Your task to perform on an android device: Show me popular videos on Youtube Image 0: 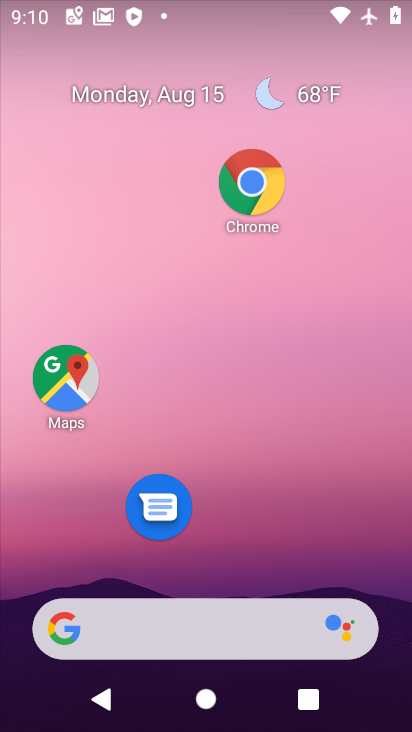
Step 0: drag from (277, 590) to (240, 29)
Your task to perform on an android device: Show me popular videos on Youtube Image 1: 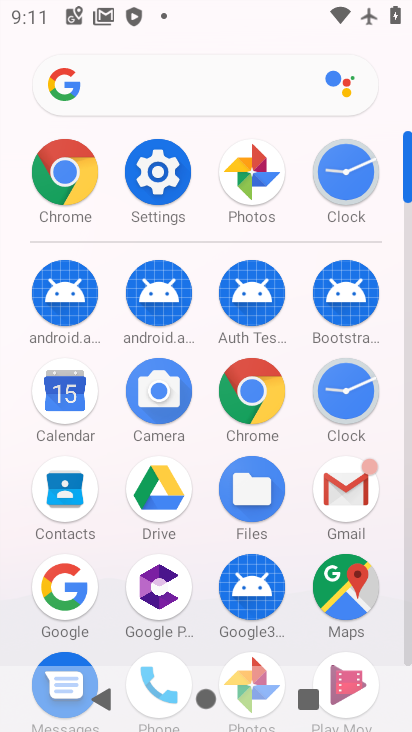
Step 1: click (405, 583)
Your task to perform on an android device: Show me popular videos on Youtube Image 2: 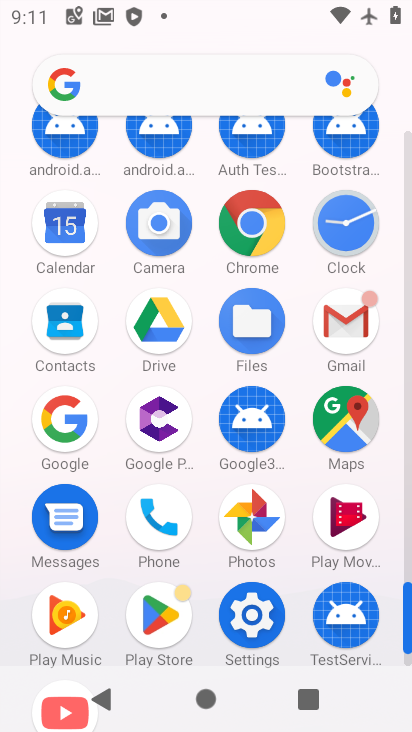
Step 2: drag from (405, 636) to (406, 672)
Your task to perform on an android device: Show me popular videos on Youtube Image 3: 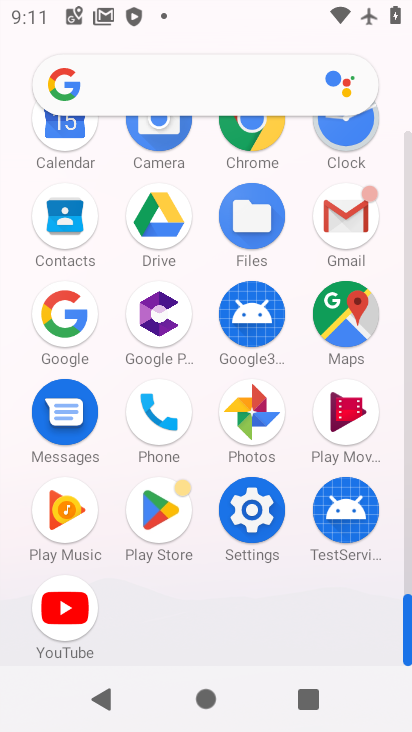
Step 3: click (77, 606)
Your task to perform on an android device: Show me popular videos on Youtube Image 4: 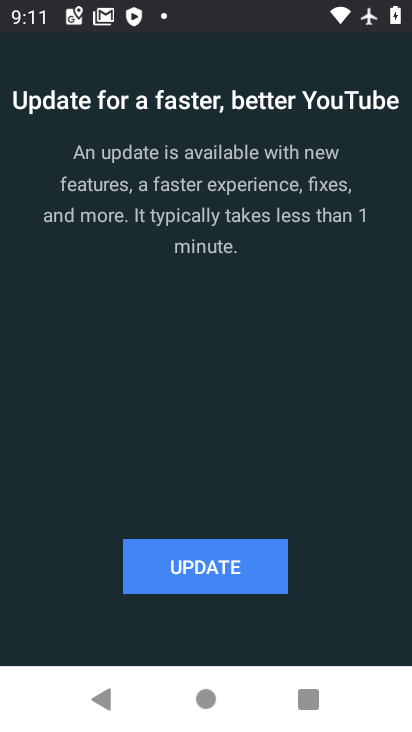
Step 4: click (154, 576)
Your task to perform on an android device: Show me popular videos on Youtube Image 5: 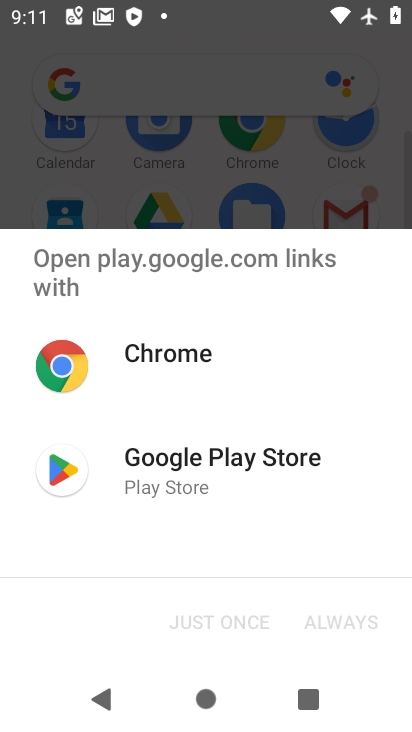
Step 5: click (107, 460)
Your task to perform on an android device: Show me popular videos on Youtube Image 6: 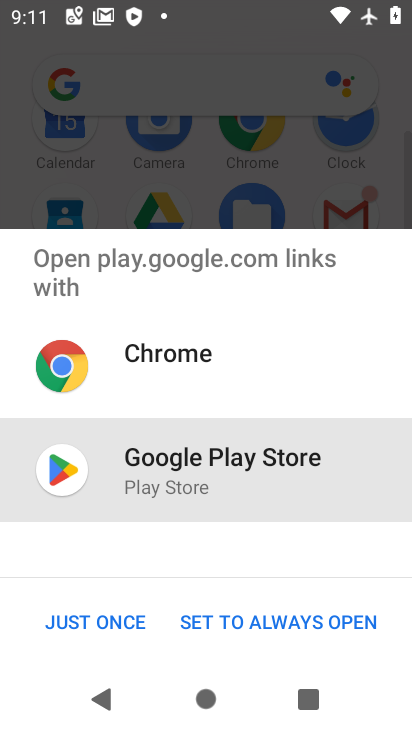
Step 6: click (119, 612)
Your task to perform on an android device: Show me popular videos on Youtube Image 7: 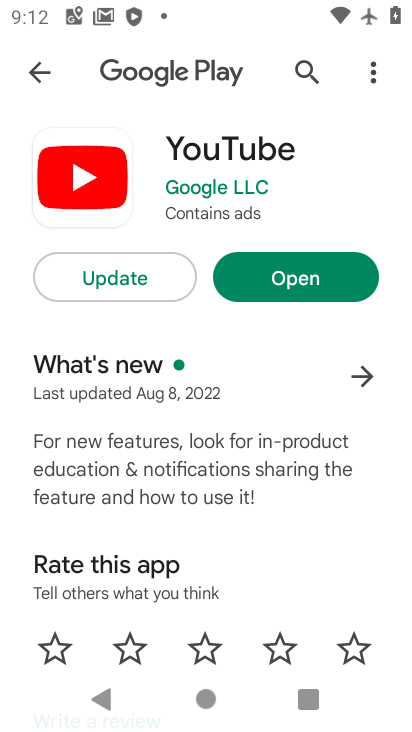
Step 7: click (259, 283)
Your task to perform on an android device: Show me popular videos on Youtube Image 8: 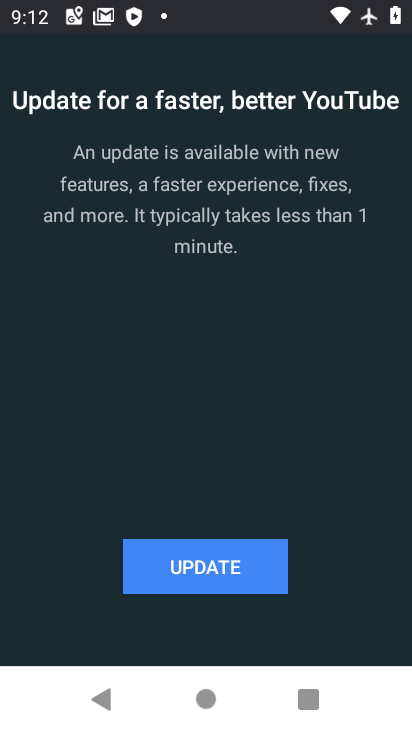
Step 8: task complete